Your task to perform on an android device: Open notification settings Image 0: 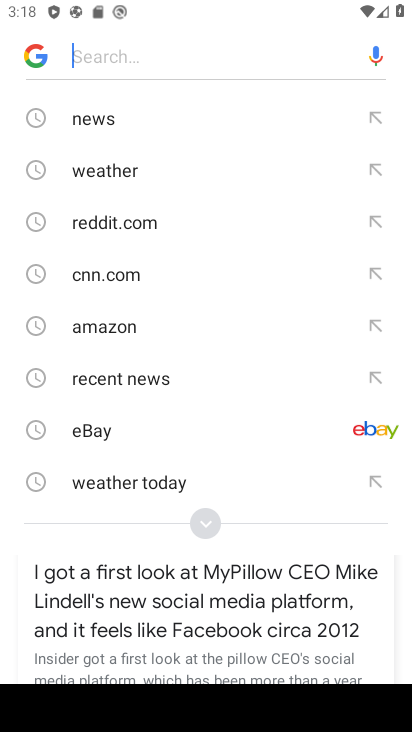
Step 0: press back button
Your task to perform on an android device: Open notification settings Image 1: 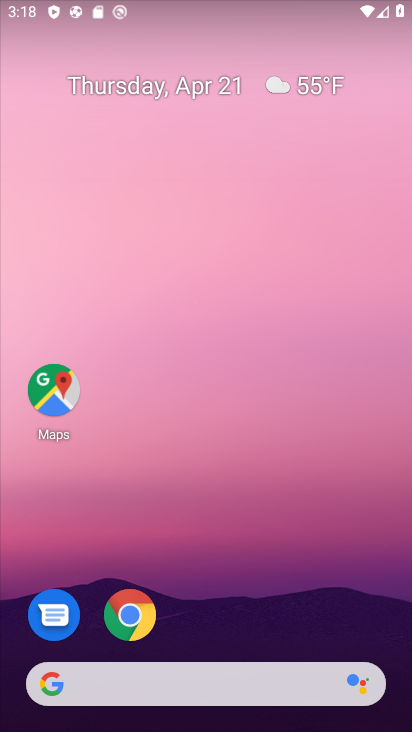
Step 1: drag from (304, 568) to (266, 0)
Your task to perform on an android device: Open notification settings Image 2: 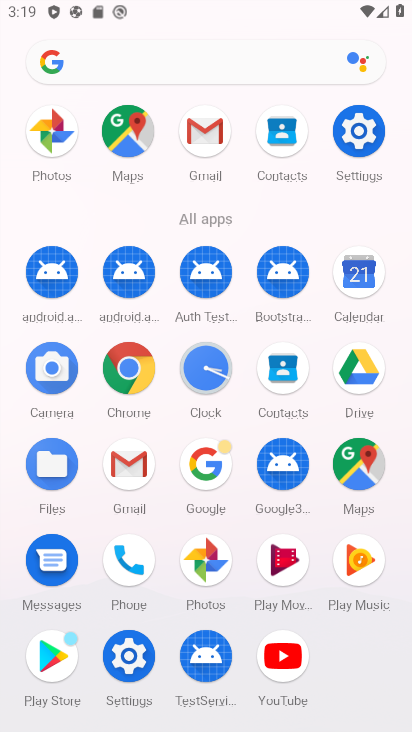
Step 2: drag from (10, 529) to (3, 313)
Your task to perform on an android device: Open notification settings Image 3: 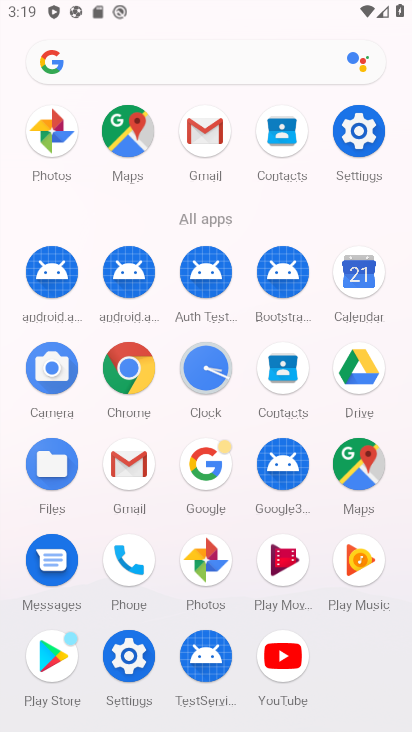
Step 3: click (131, 652)
Your task to perform on an android device: Open notification settings Image 4: 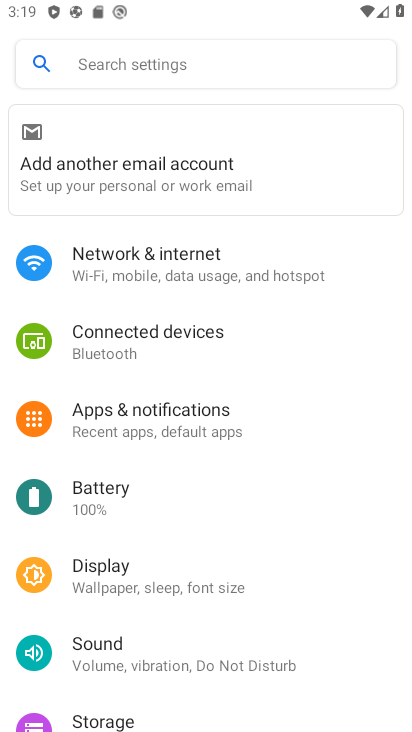
Step 4: click (154, 419)
Your task to perform on an android device: Open notification settings Image 5: 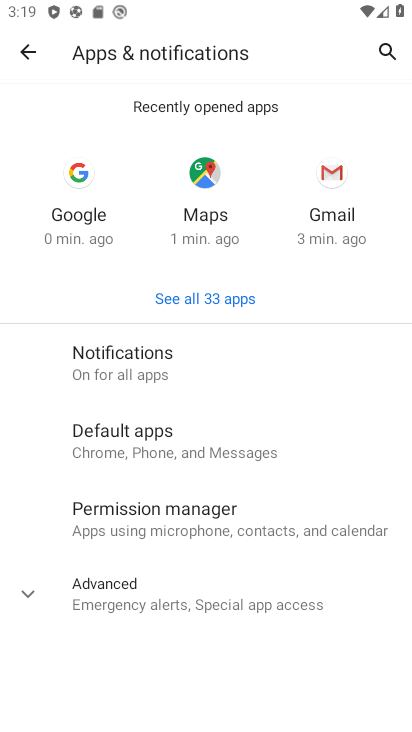
Step 5: click (167, 366)
Your task to perform on an android device: Open notification settings Image 6: 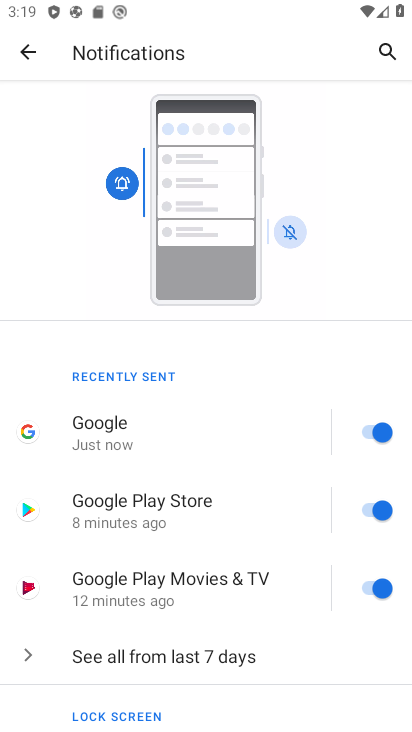
Step 6: drag from (154, 533) to (191, 157)
Your task to perform on an android device: Open notification settings Image 7: 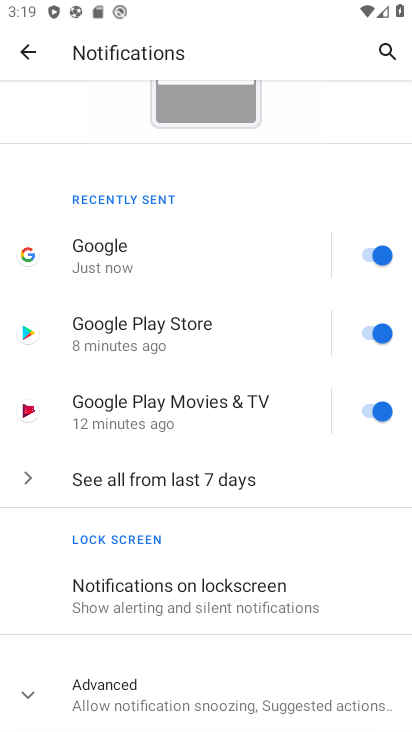
Step 7: drag from (248, 462) to (253, 172)
Your task to perform on an android device: Open notification settings Image 8: 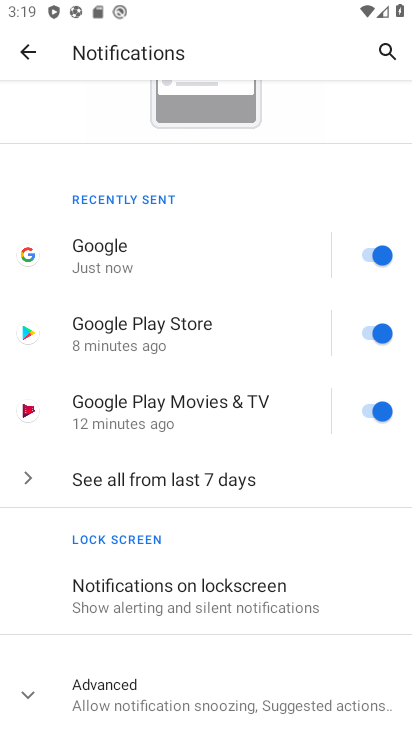
Step 8: click (57, 700)
Your task to perform on an android device: Open notification settings Image 9: 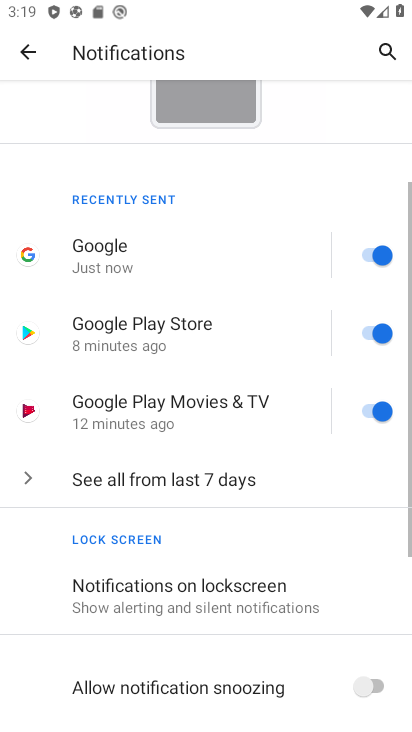
Step 9: task complete